Your task to perform on an android device: turn on translation in the chrome app Image 0: 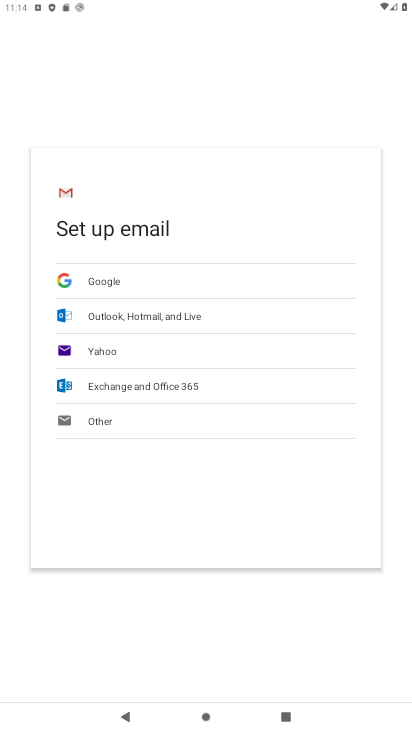
Step 0: press home button
Your task to perform on an android device: turn on translation in the chrome app Image 1: 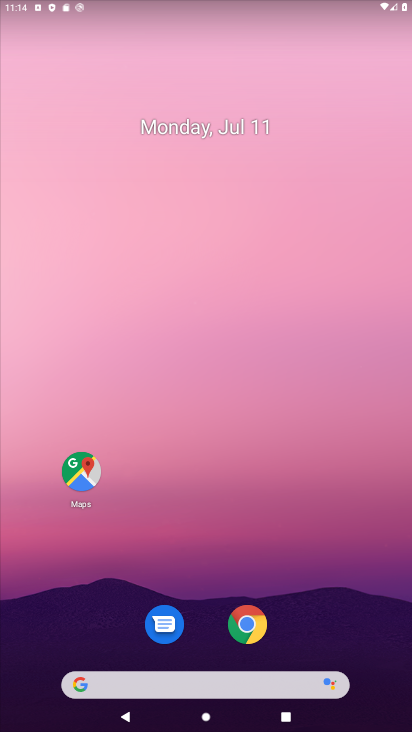
Step 1: click (249, 609)
Your task to perform on an android device: turn on translation in the chrome app Image 2: 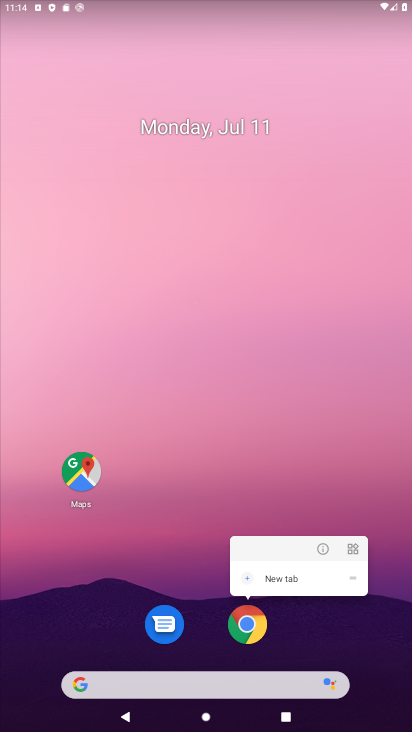
Step 2: click (235, 624)
Your task to perform on an android device: turn on translation in the chrome app Image 3: 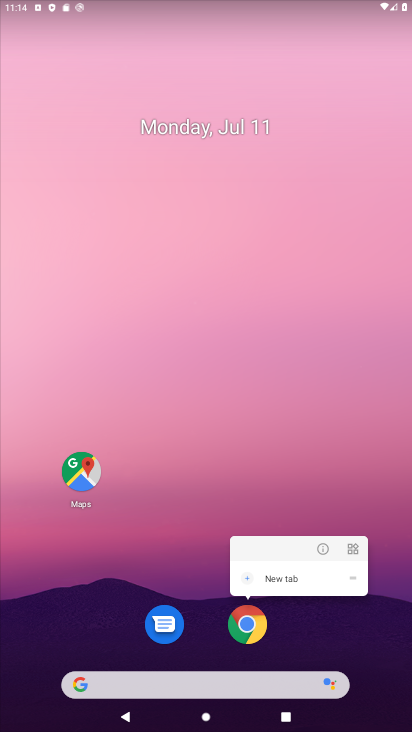
Step 3: click (251, 614)
Your task to perform on an android device: turn on translation in the chrome app Image 4: 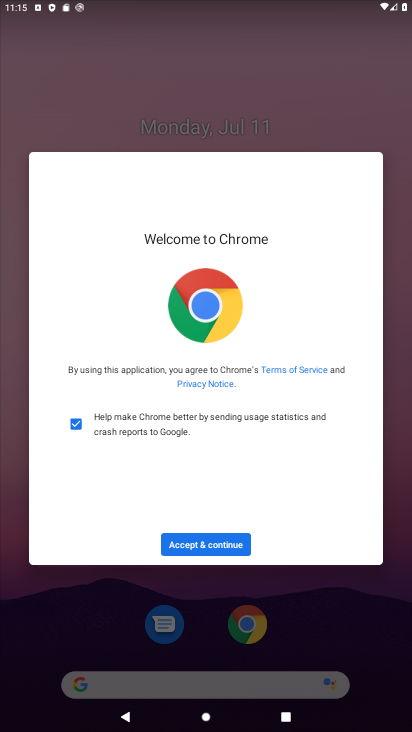
Step 4: click (228, 541)
Your task to perform on an android device: turn on translation in the chrome app Image 5: 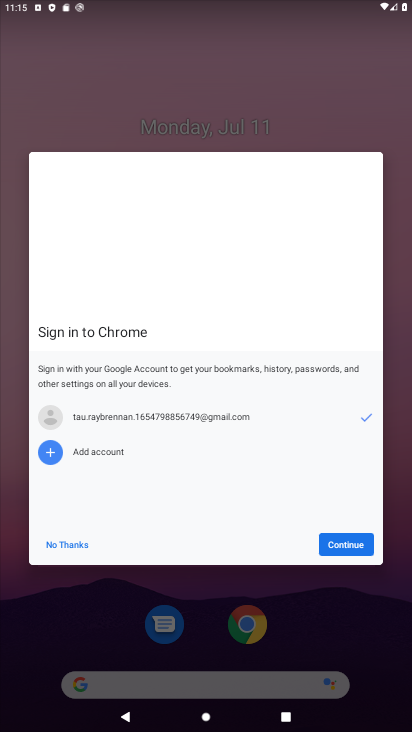
Step 5: click (340, 540)
Your task to perform on an android device: turn on translation in the chrome app Image 6: 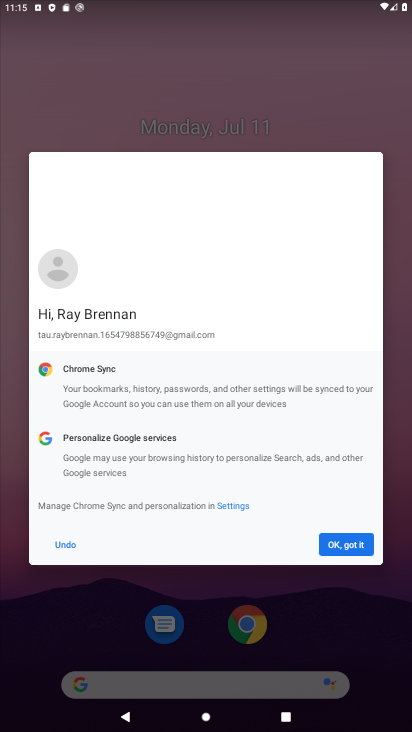
Step 6: click (340, 540)
Your task to perform on an android device: turn on translation in the chrome app Image 7: 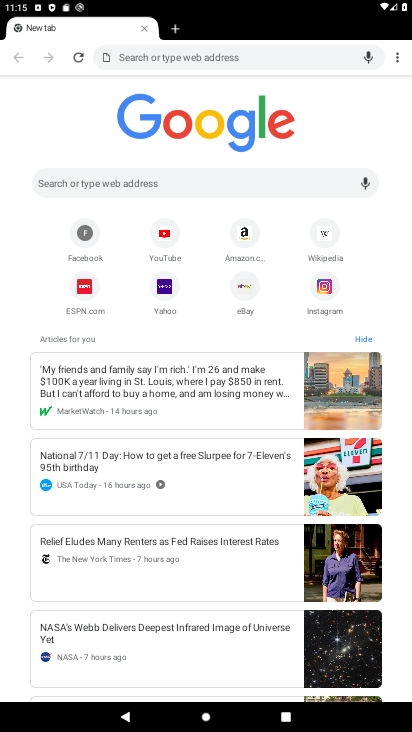
Step 7: click (395, 60)
Your task to perform on an android device: turn on translation in the chrome app Image 8: 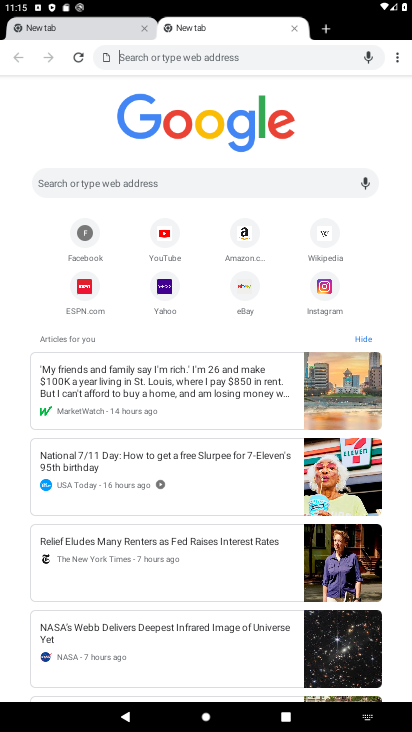
Step 8: click (391, 58)
Your task to perform on an android device: turn on translation in the chrome app Image 9: 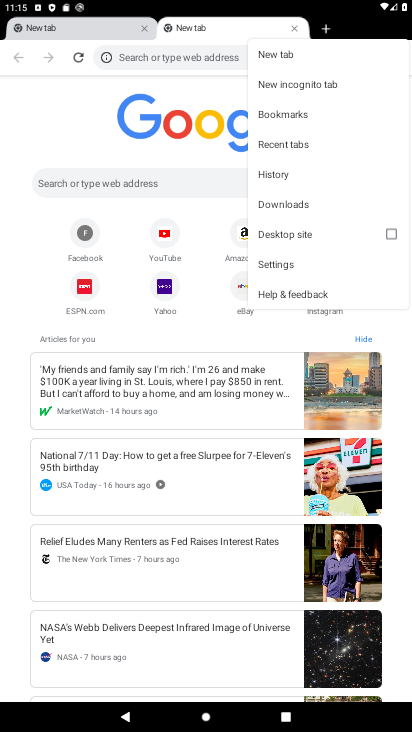
Step 9: click (295, 268)
Your task to perform on an android device: turn on translation in the chrome app Image 10: 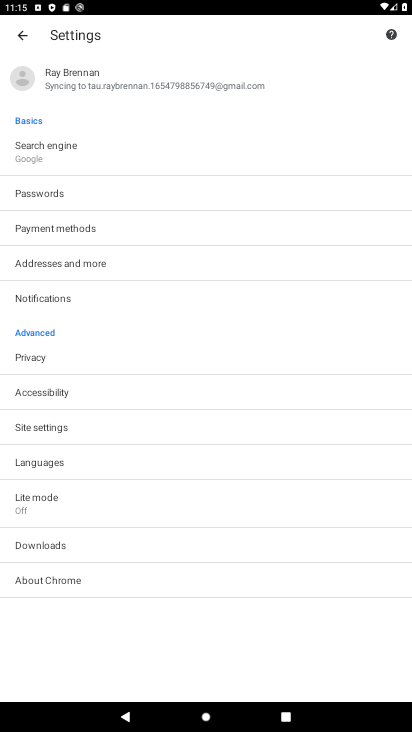
Step 10: click (105, 459)
Your task to perform on an android device: turn on translation in the chrome app Image 11: 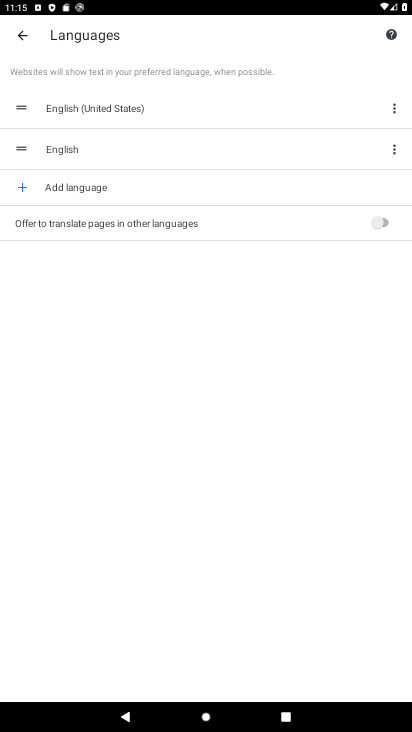
Step 11: click (380, 217)
Your task to perform on an android device: turn on translation in the chrome app Image 12: 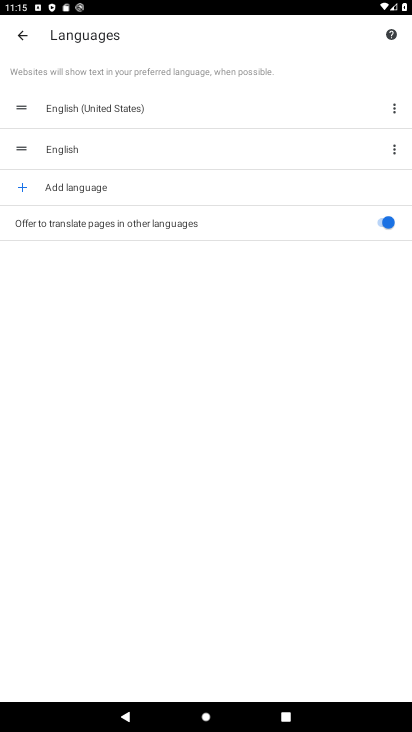
Step 12: task complete